Your task to perform on an android device: Search for seafood restaurants on Google Maps Image 0: 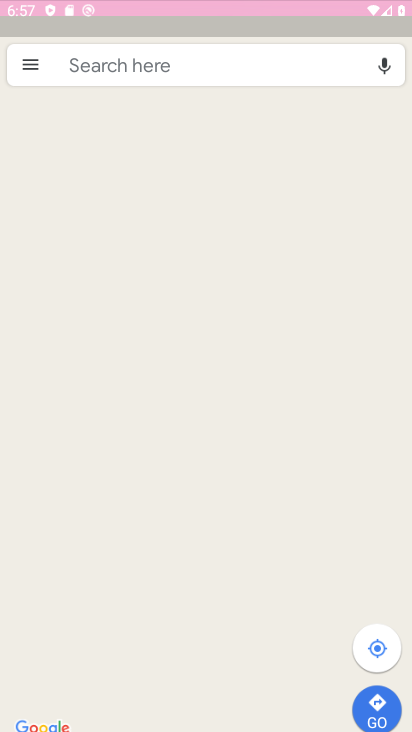
Step 0: click (185, 8)
Your task to perform on an android device: Search for seafood restaurants on Google Maps Image 1: 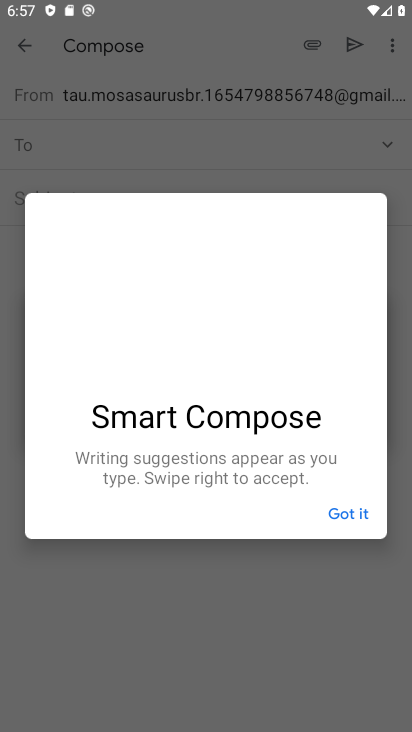
Step 1: press home button
Your task to perform on an android device: Search for seafood restaurants on Google Maps Image 2: 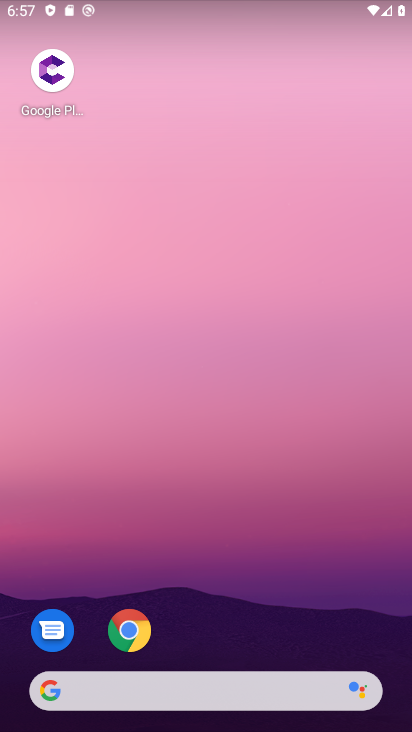
Step 2: drag from (170, 720) to (184, 13)
Your task to perform on an android device: Search for seafood restaurants on Google Maps Image 3: 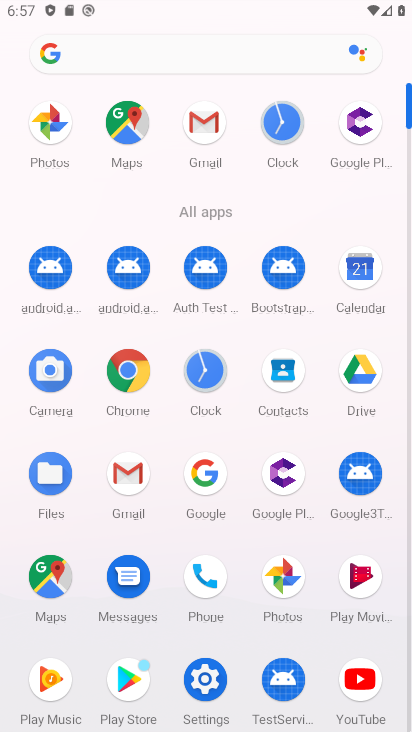
Step 3: click (132, 136)
Your task to perform on an android device: Search for seafood restaurants on Google Maps Image 4: 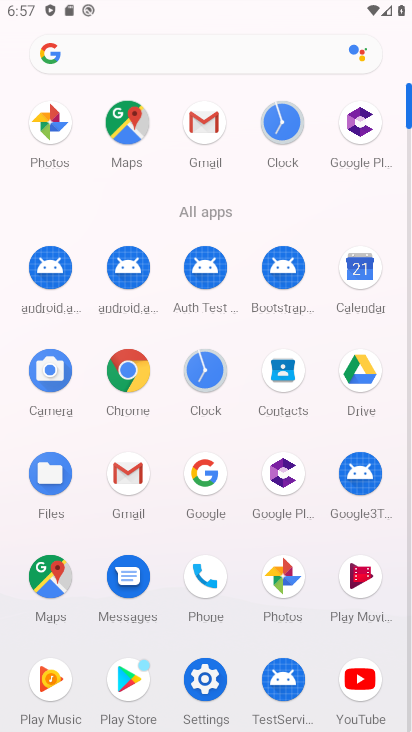
Step 4: click (132, 136)
Your task to perform on an android device: Search for seafood restaurants on Google Maps Image 5: 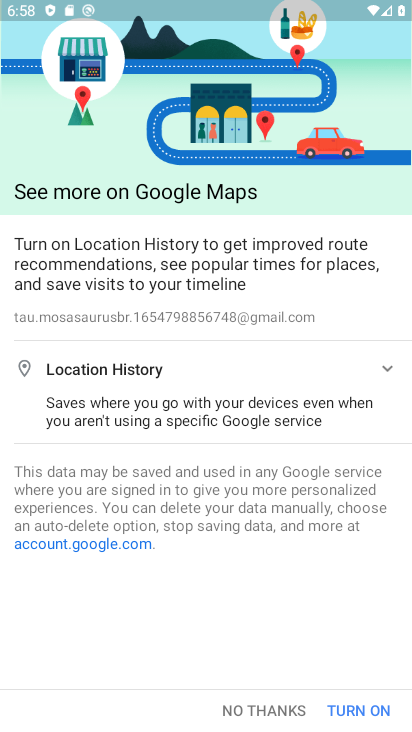
Step 5: click (266, 714)
Your task to perform on an android device: Search for seafood restaurants on Google Maps Image 6: 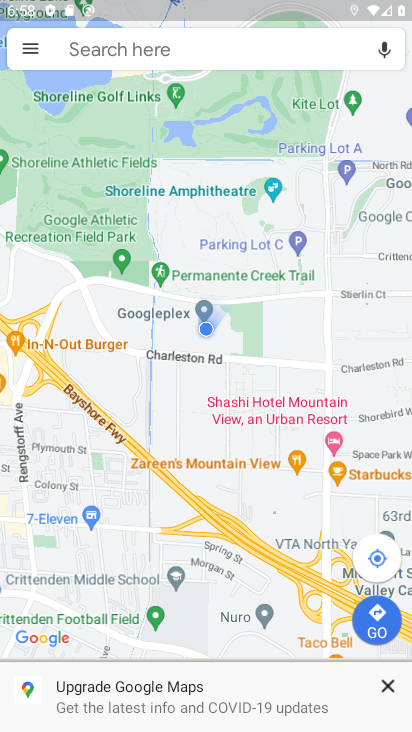
Step 6: click (143, 56)
Your task to perform on an android device: Search for seafood restaurants on Google Maps Image 7: 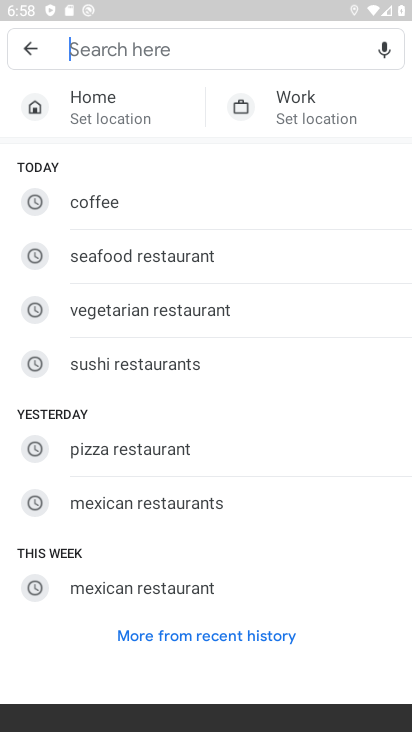
Step 7: click (205, 259)
Your task to perform on an android device: Search for seafood restaurants on Google Maps Image 8: 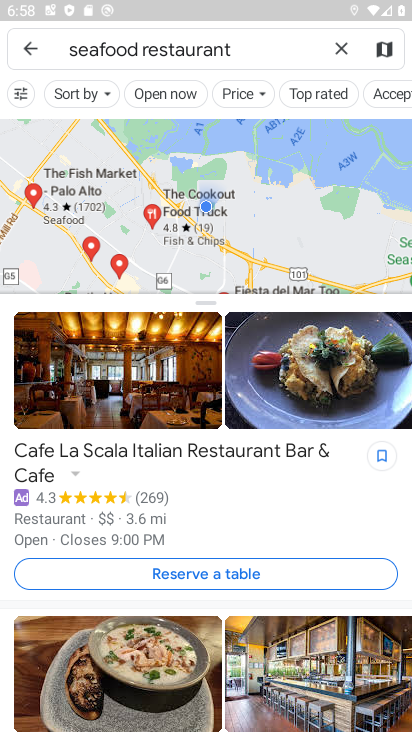
Step 8: task complete